Your task to perform on an android device: Find coffee shops on Maps Image 0: 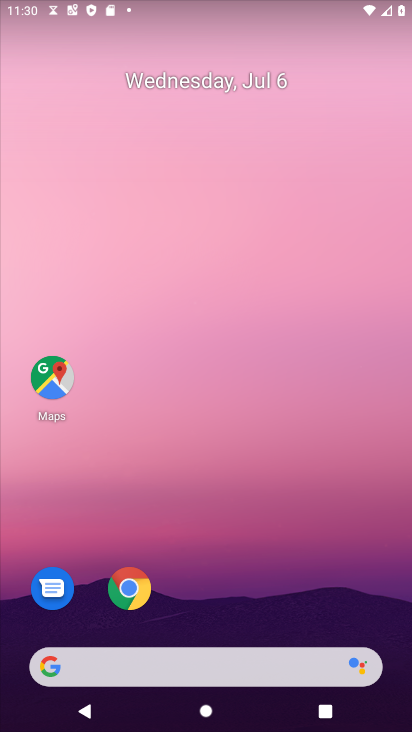
Step 0: drag from (260, 594) to (290, 294)
Your task to perform on an android device: Find coffee shops on Maps Image 1: 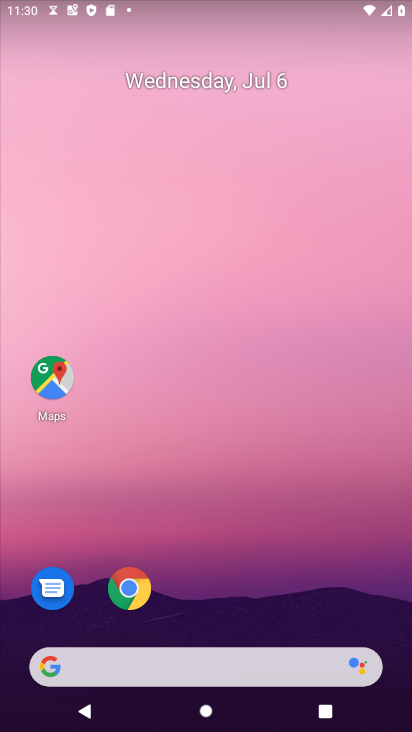
Step 1: drag from (246, 630) to (241, 16)
Your task to perform on an android device: Find coffee shops on Maps Image 2: 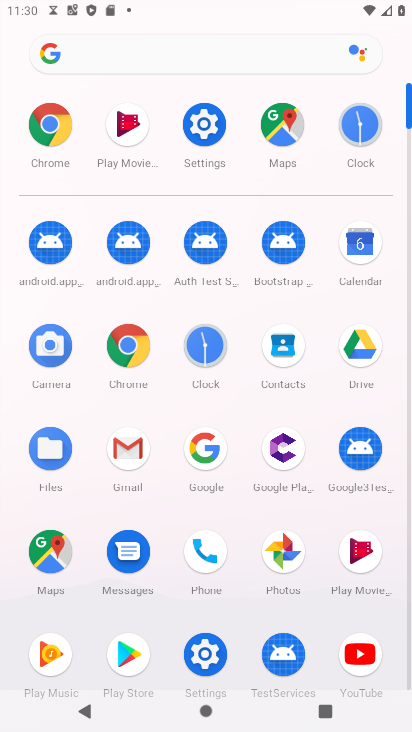
Step 2: click (43, 551)
Your task to perform on an android device: Find coffee shops on Maps Image 3: 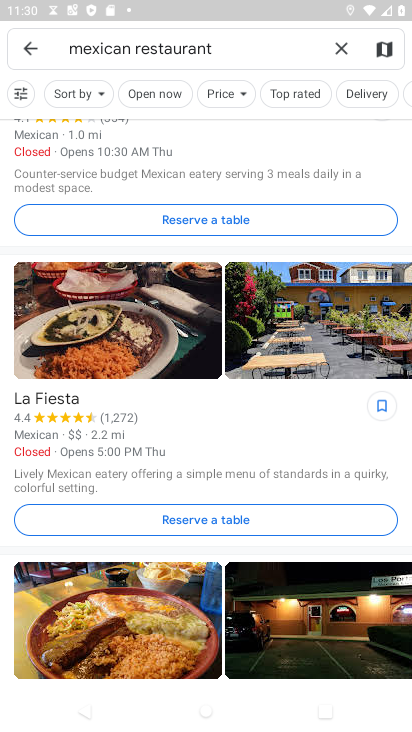
Step 3: click (348, 48)
Your task to perform on an android device: Find coffee shops on Maps Image 4: 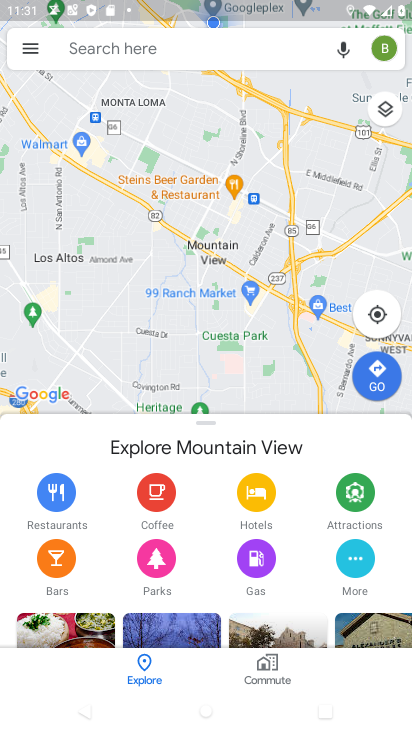
Step 4: click (145, 40)
Your task to perform on an android device: Find coffee shops on Maps Image 5: 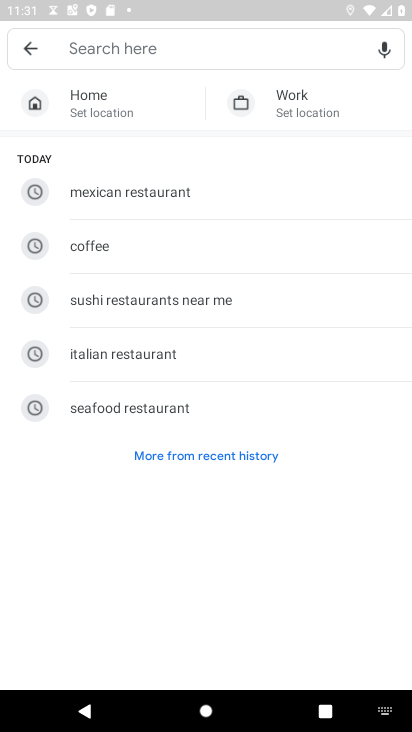
Step 5: type " coffee shops "
Your task to perform on an android device: Find coffee shops on Maps Image 6: 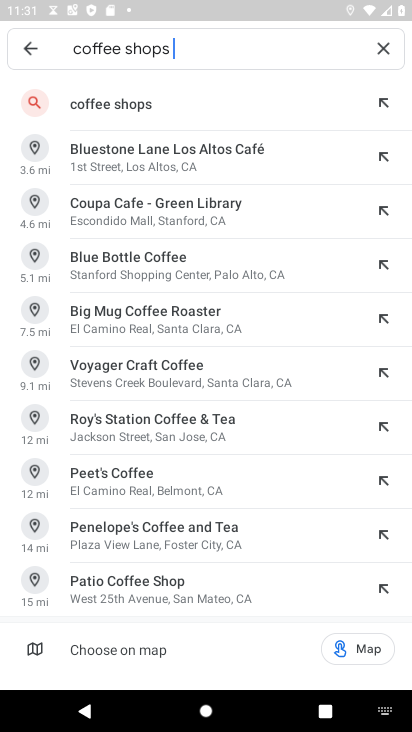
Step 6: click (176, 93)
Your task to perform on an android device: Find coffee shops on Maps Image 7: 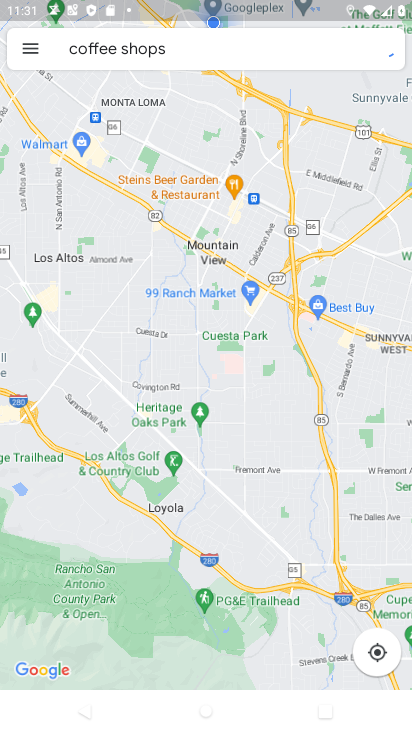
Step 7: task complete